Your task to perform on an android device: Go to Yahoo.com Image 0: 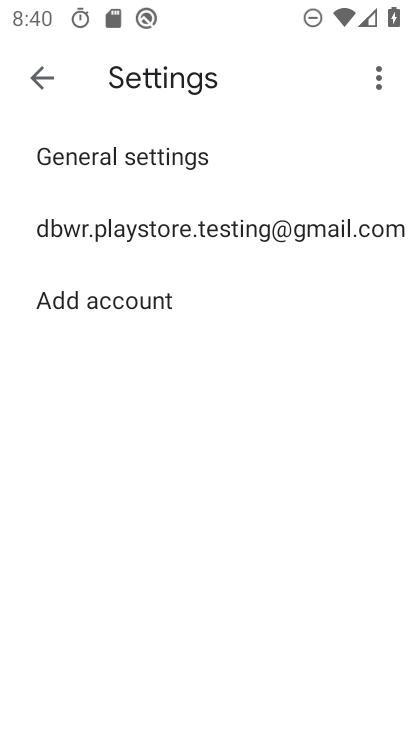
Step 0: press home button
Your task to perform on an android device: Go to Yahoo.com Image 1: 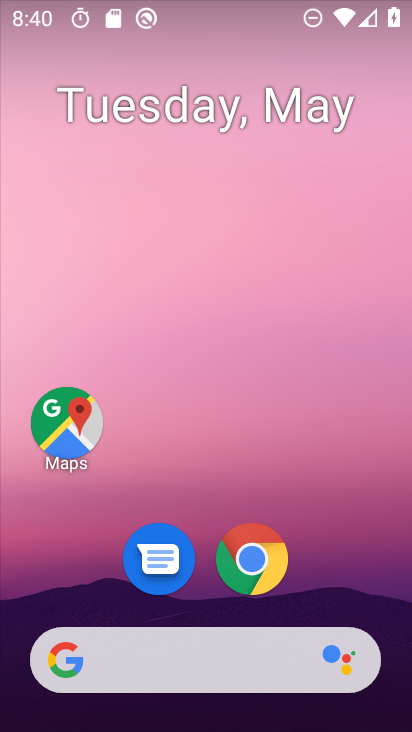
Step 1: drag from (385, 627) to (318, 67)
Your task to perform on an android device: Go to Yahoo.com Image 2: 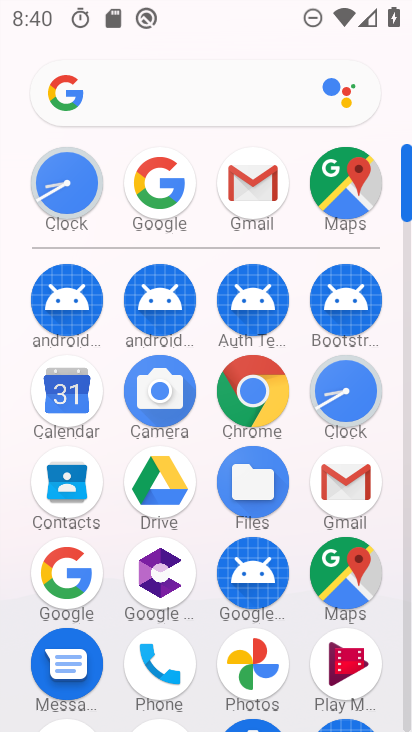
Step 2: click (55, 584)
Your task to perform on an android device: Go to Yahoo.com Image 3: 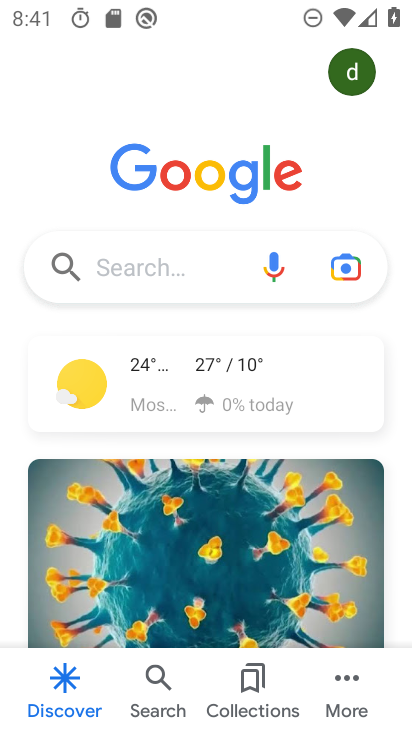
Step 3: click (175, 269)
Your task to perform on an android device: Go to Yahoo.com Image 4: 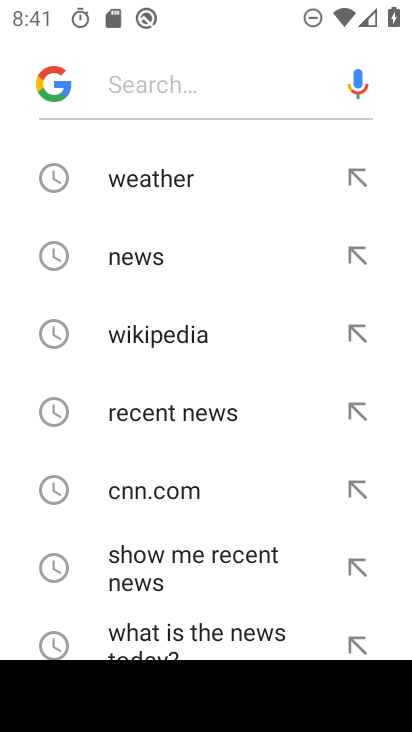
Step 4: drag from (155, 569) to (218, 106)
Your task to perform on an android device: Go to Yahoo.com Image 5: 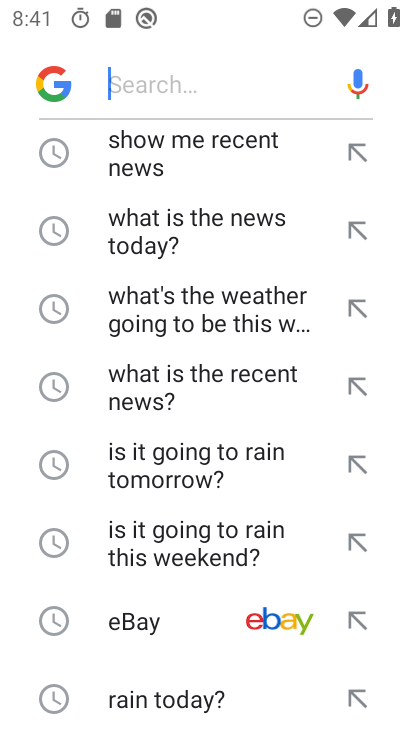
Step 5: drag from (181, 635) to (193, 142)
Your task to perform on an android device: Go to Yahoo.com Image 6: 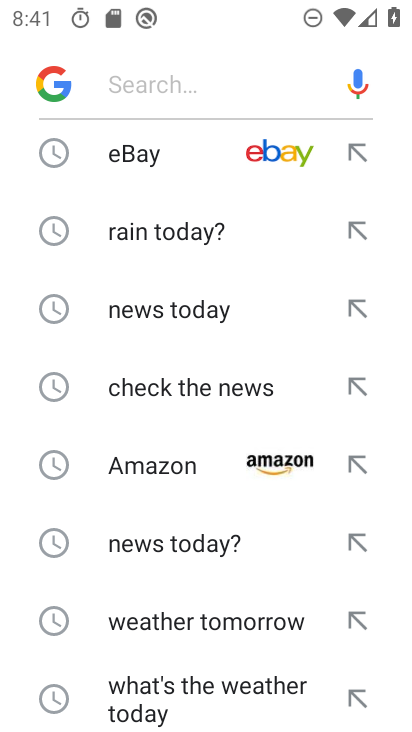
Step 6: drag from (133, 623) to (192, 159)
Your task to perform on an android device: Go to Yahoo.com Image 7: 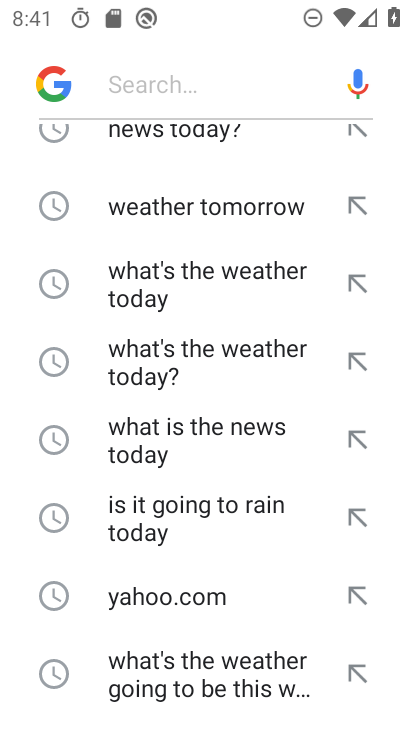
Step 7: click (153, 617)
Your task to perform on an android device: Go to Yahoo.com Image 8: 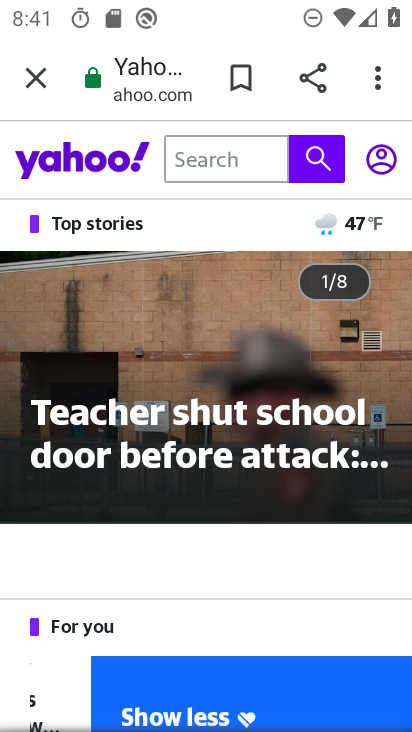
Step 8: task complete